Your task to perform on an android device: Search for Italian restaurants on Maps Image 0: 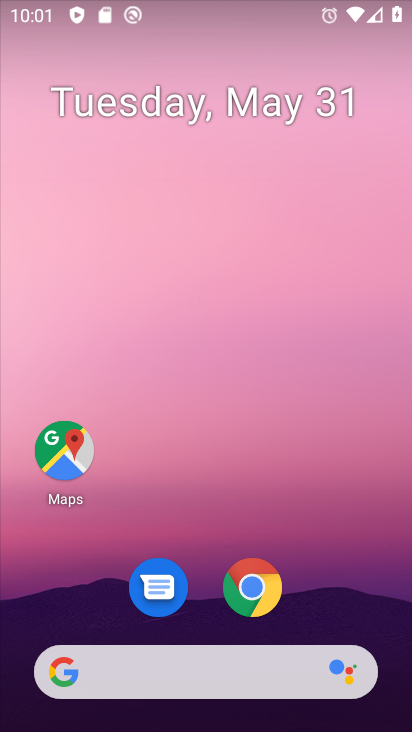
Step 0: drag from (381, 620) to (388, 291)
Your task to perform on an android device: Search for Italian restaurants on Maps Image 1: 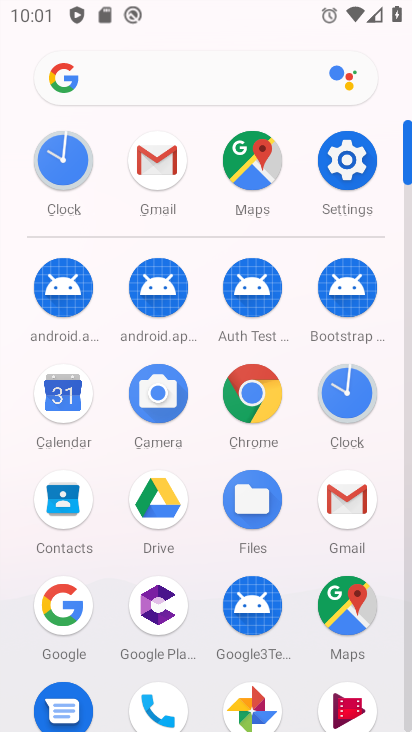
Step 1: click (361, 614)
Your task to perform on an android device: Search for Italian restaurants on Maps Image 2: 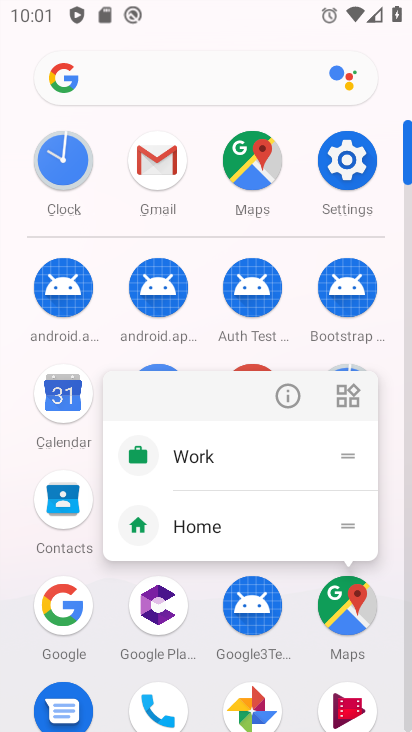
Step 2: click (361, 614)
Your task to perform on an android device: Search for Italian restaurants on Maps Image 3: 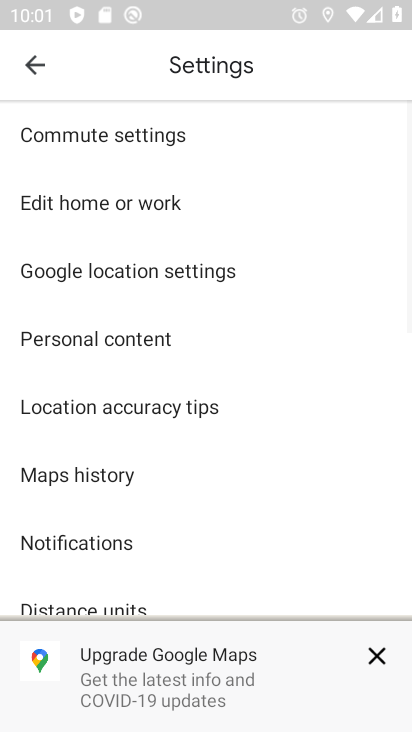
Step 3: press back button
Your task to perform on an android device: Search for Italian restaurants on Maps Image 4: 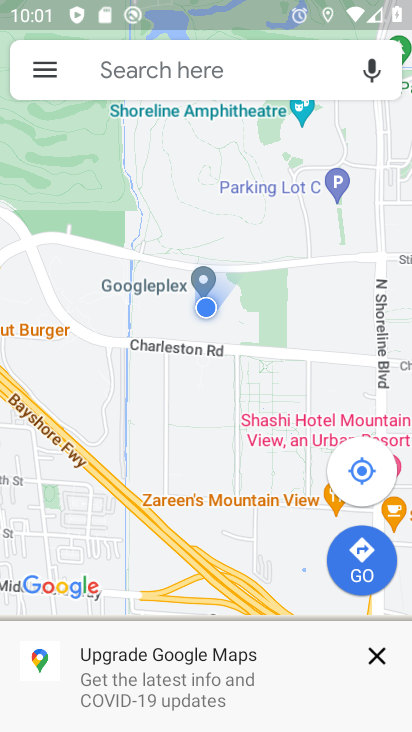
Step 4: click (222, 77)
Your task to perform on an android device: Search for Italian restaurants on Maps Image 5: 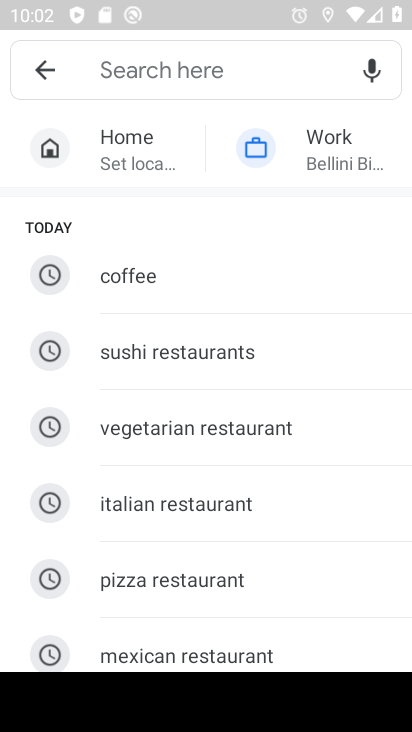
Step 5: type "italian restaurants"
Your task to perform on an android device: Search for Italian restaurants on Maps Image 6: 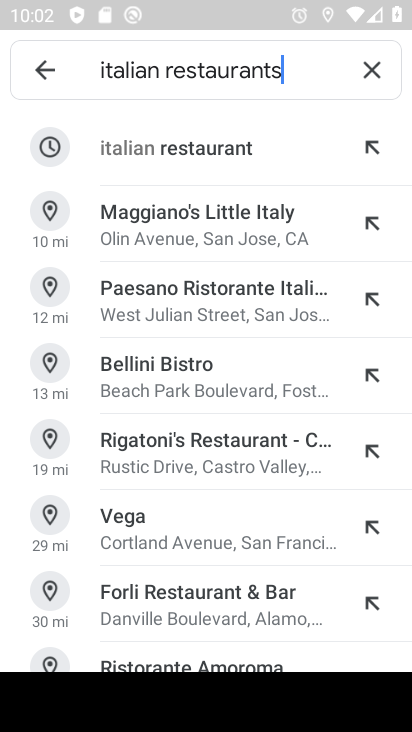
Step 6: click (241, 151)
Your task to perform on an android device: Search for Italian restaurants on Maps Image 7: 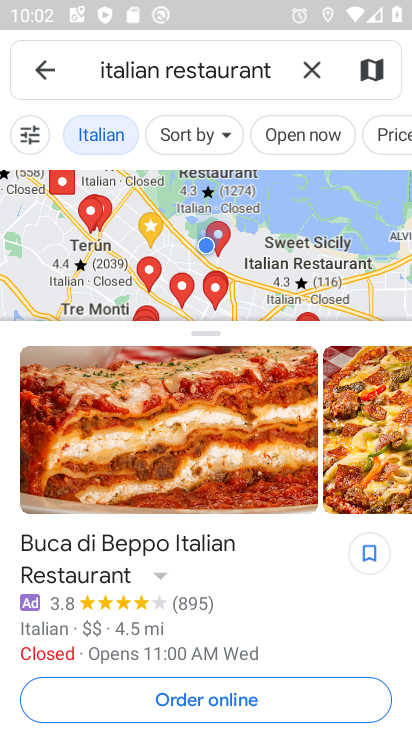
Step 7: task complete